Your task to perform on an android device: turn on the 12-hour format for clock Image 0: 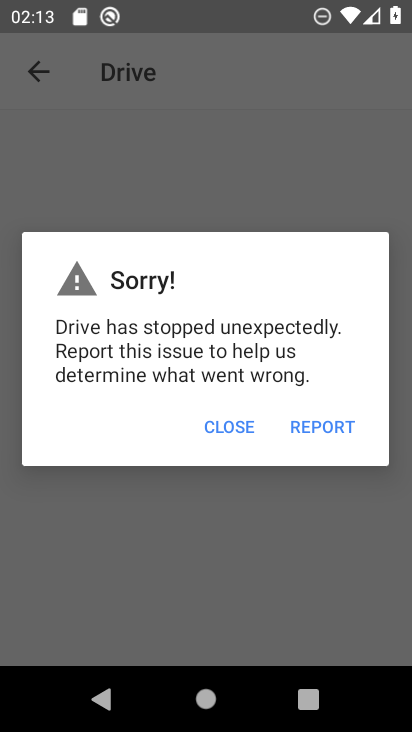
Step 0: drag from (208, 727) to (193, 200)
Your task to perform on an android device: turn on the 12-hour format for clock Image 1: 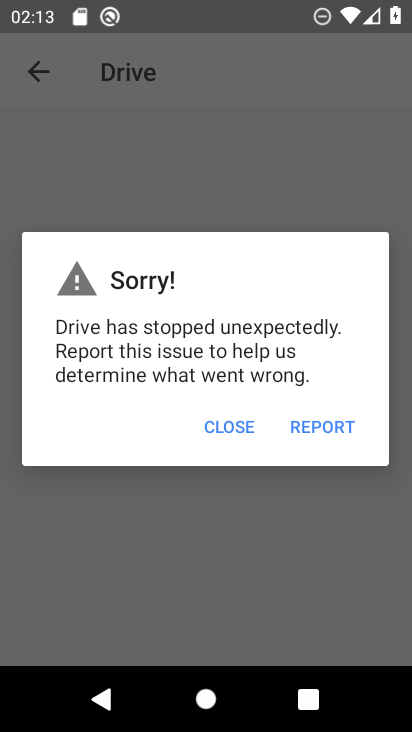
Step 1: press home button
Your task to perform on an android device: turn on the 12-hour format for clock Image 2: 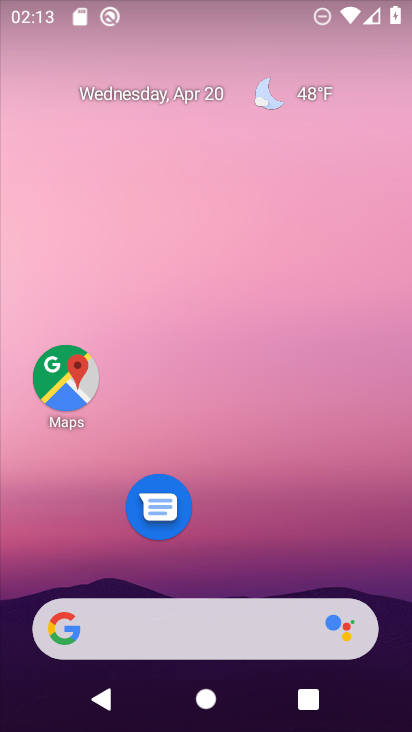
Step 2: drag from (213, 679) to (194, 73)
Your task to perform on an android device: turn on the 12-hour format for clock Image 3: 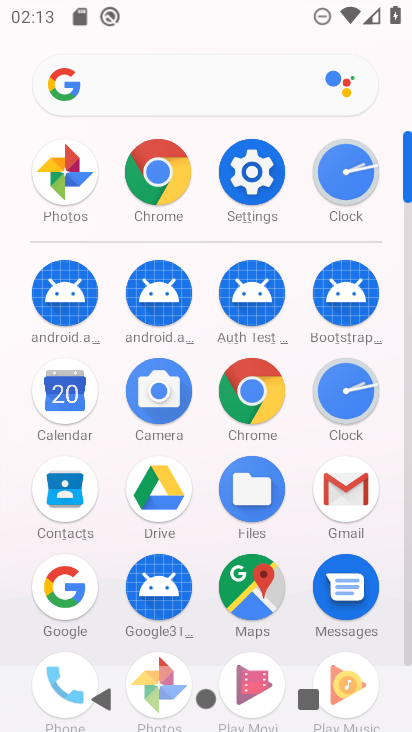
Step 3: click (345, 394)
Your task to perform on an android device: turn on the 12-hour format for clock Image 4: 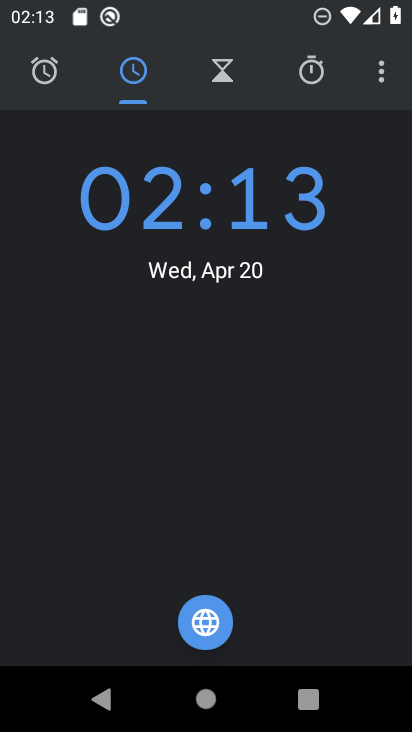
Step 4: click (381, 76)
Your task to perform on an android device: turn on the 12-hour format for clock Image 5: 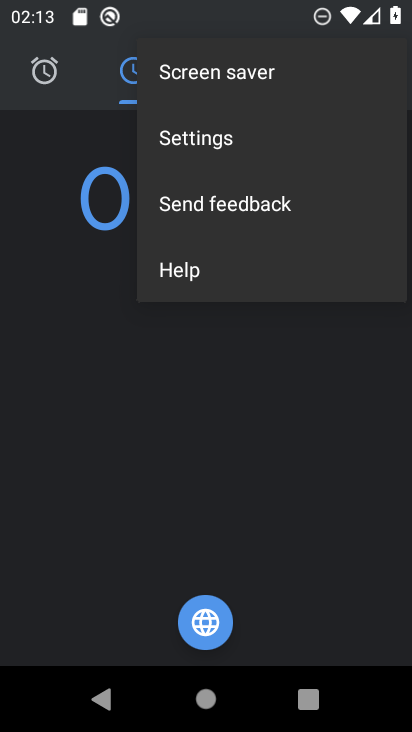
Step 5: click (188, 138)
Your task to perform on an android device: turn on the 12-hour format for clock Image 6: 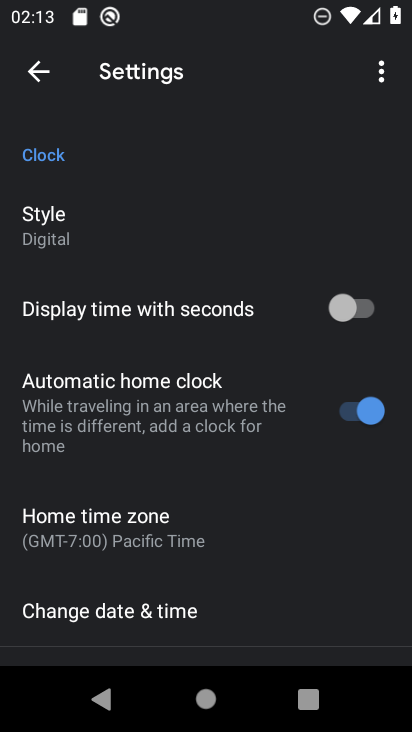
Step 6: drag from (231, 629) to (214, 385)
Your task to perform on an android device: turn on the 12-hour format for clock Image 7: 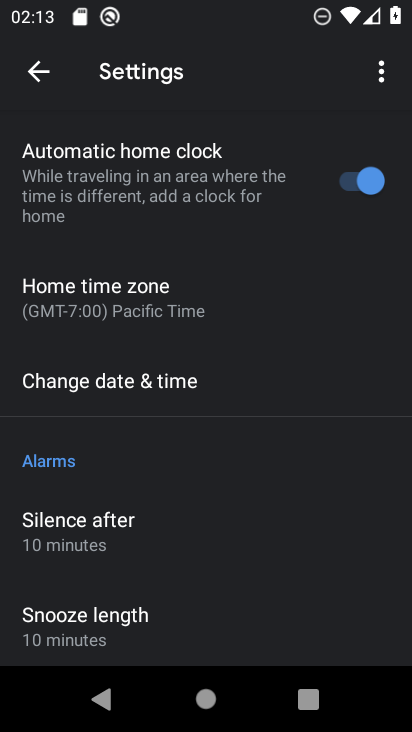
Step 7: click (99, 391)
Your task to perform on an android device: turn on the 12-hour format for clock Image 8: 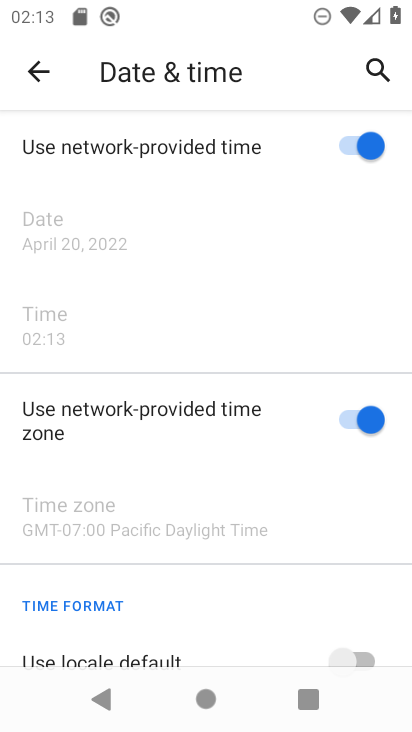
Step 8: drag from (209, 633) to (200, 284)
Your task to perform on an android device: turn on the 12-hour format for clock Image 9: 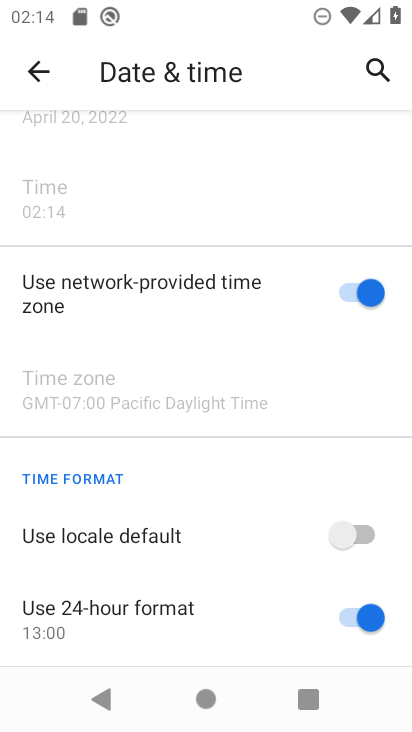
Step 9: click (346, 619)
Your task to perform on an android device: turn on the 12-hour format for clock Image 10: 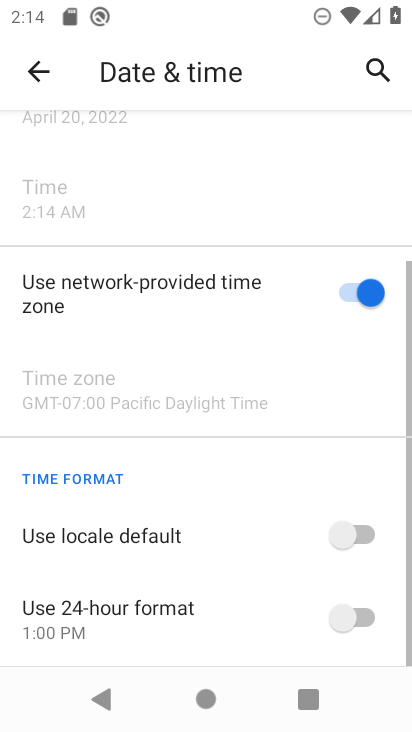
Step 10: click (364, 535)
Your task to perform on an android device: turn on the 12-hour format for clock Image 11: 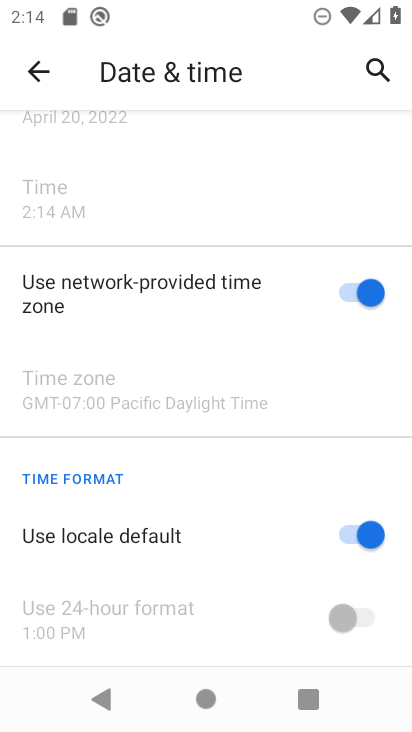
Step 11: task complete